Your task to perform on an android device: Search for custom wallets on Etsy. Image 0: 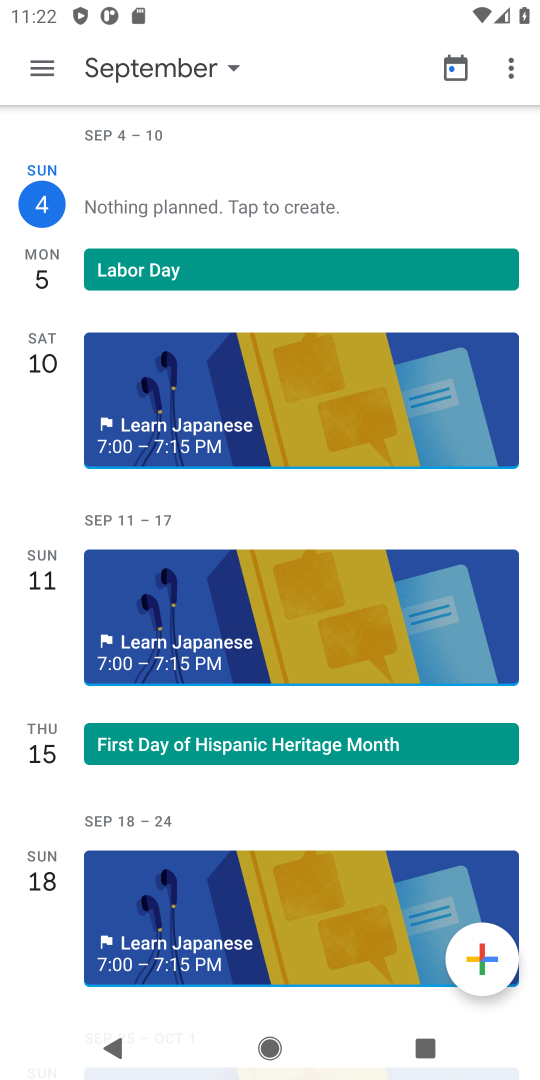
Step 0: press home button
Your task to perform on an android device: Search for custom wallets on Etsy. Image 1: 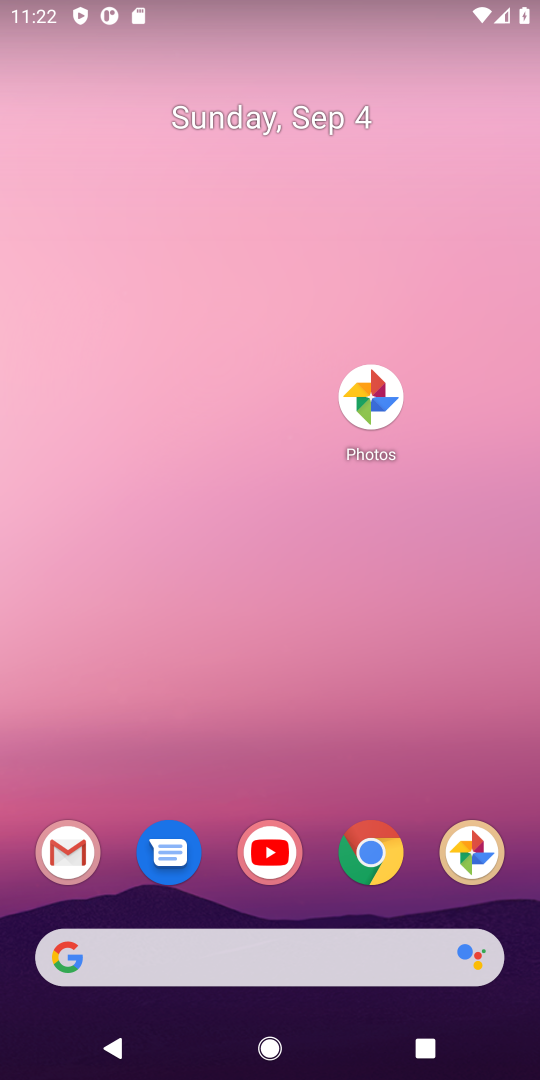
Step 1: drag from (434, 891) to (75, 21)
Your task to perform on an android device: Search for custom wallets on Etsy. Image 2: 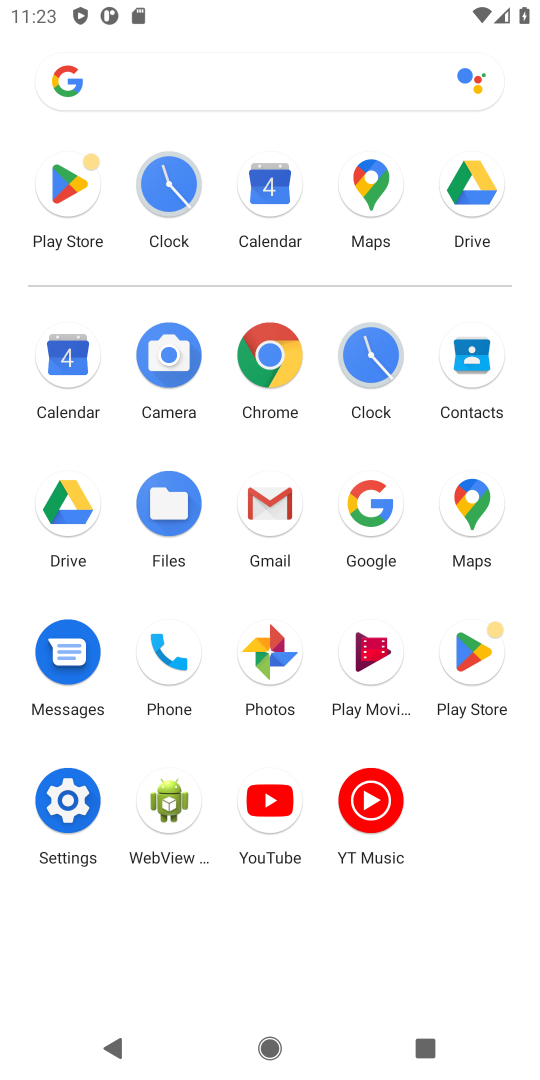
Step 2: click (354, 508)
Your task to perform on an android device: Search for custom wallets on Etsy. Image 3: 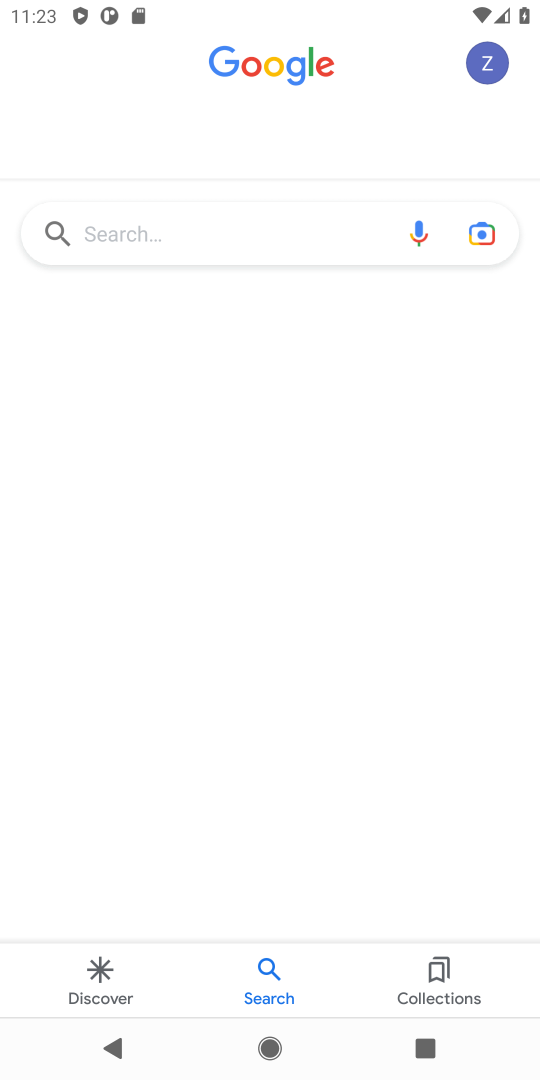
Step 3: click (195, 244)
Your task to perform on an android device: Search for custom wallets on Etsy. Image 4: 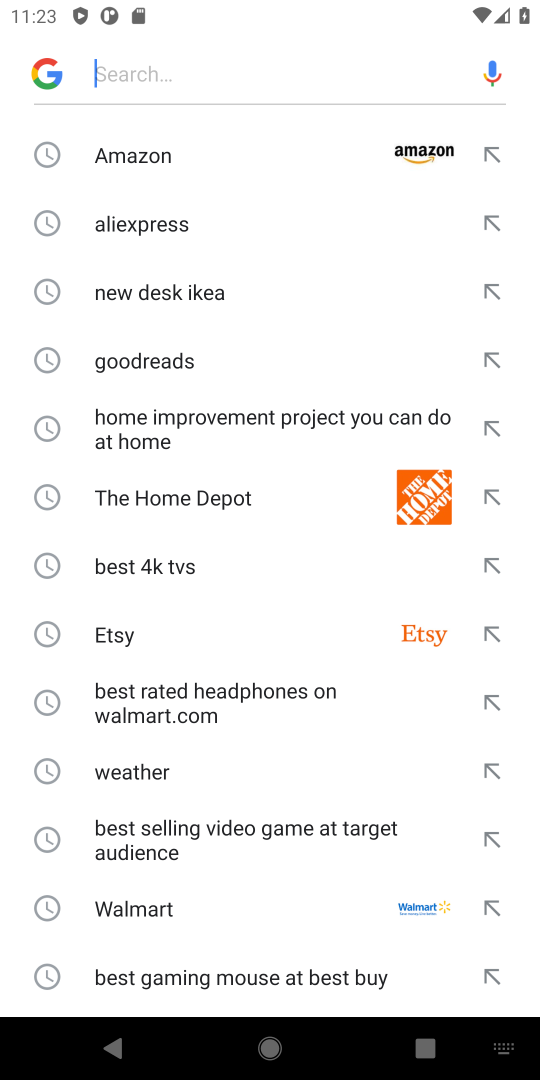
Step 4: type "custom wallets on Etsy"
Your task to perform on an android device: Search for custom wallets on Etsy. Image 5: 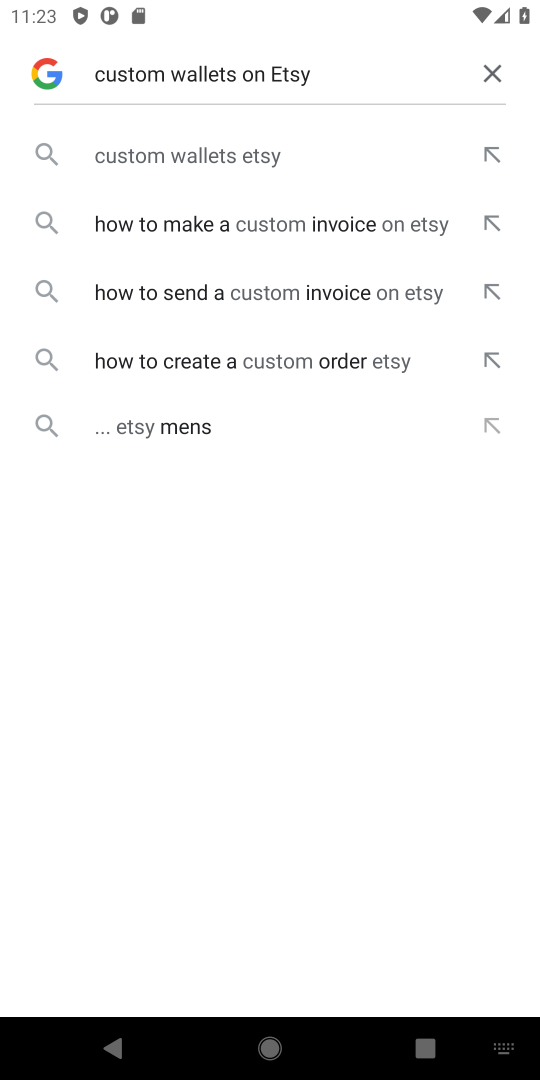
Step 5: click (217, 164)
Your task to perform on an android device: Search for custom wallets on Etsy. Image 6: 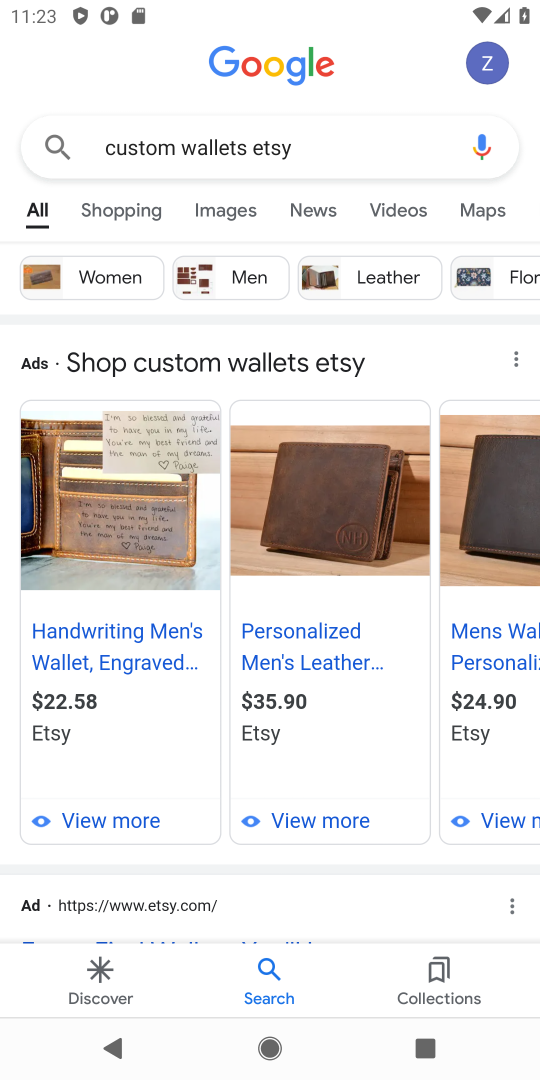
Step 6: task complete